Your task to perform on an android device: change the clock display to analog Image 0: 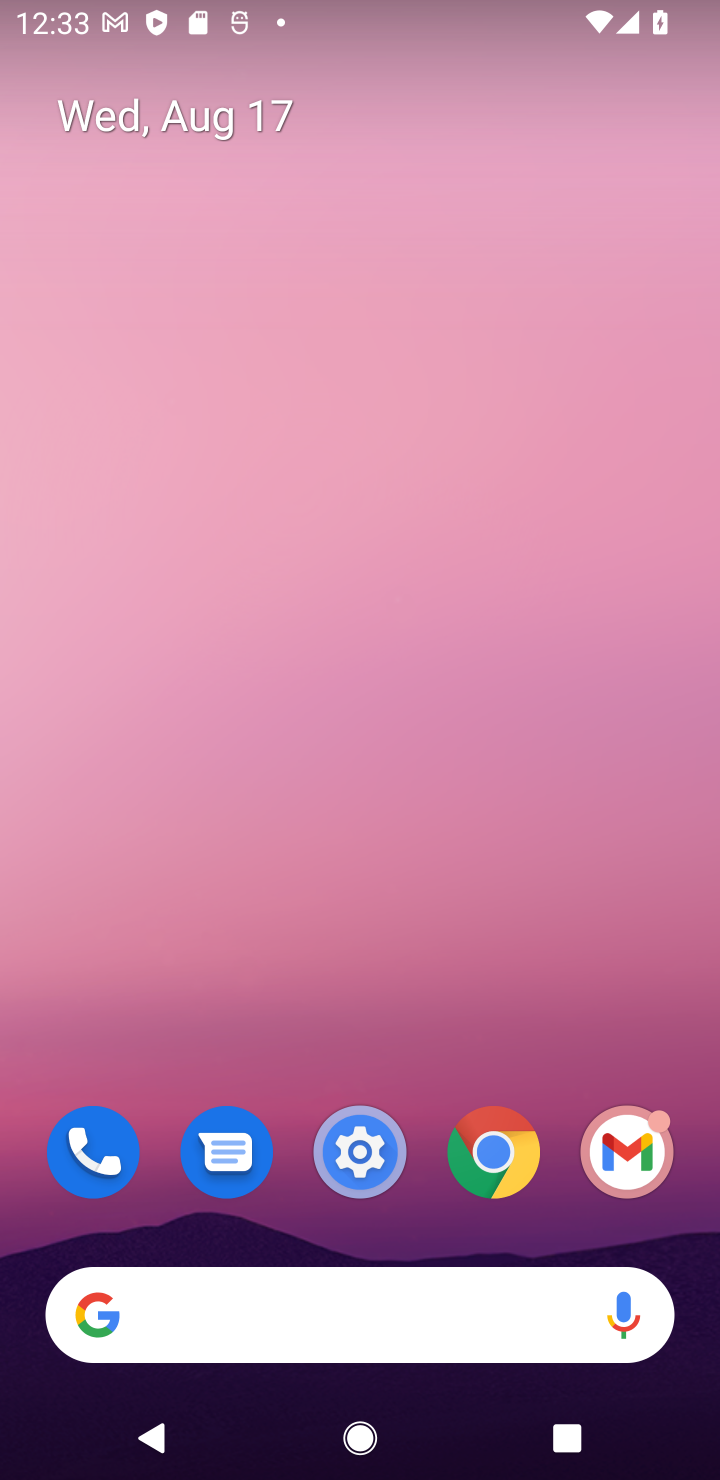
Step 0: drag from (490, 716) to (247, 25)
Your task to perform on an android device: change the clock display to analog Image 1: 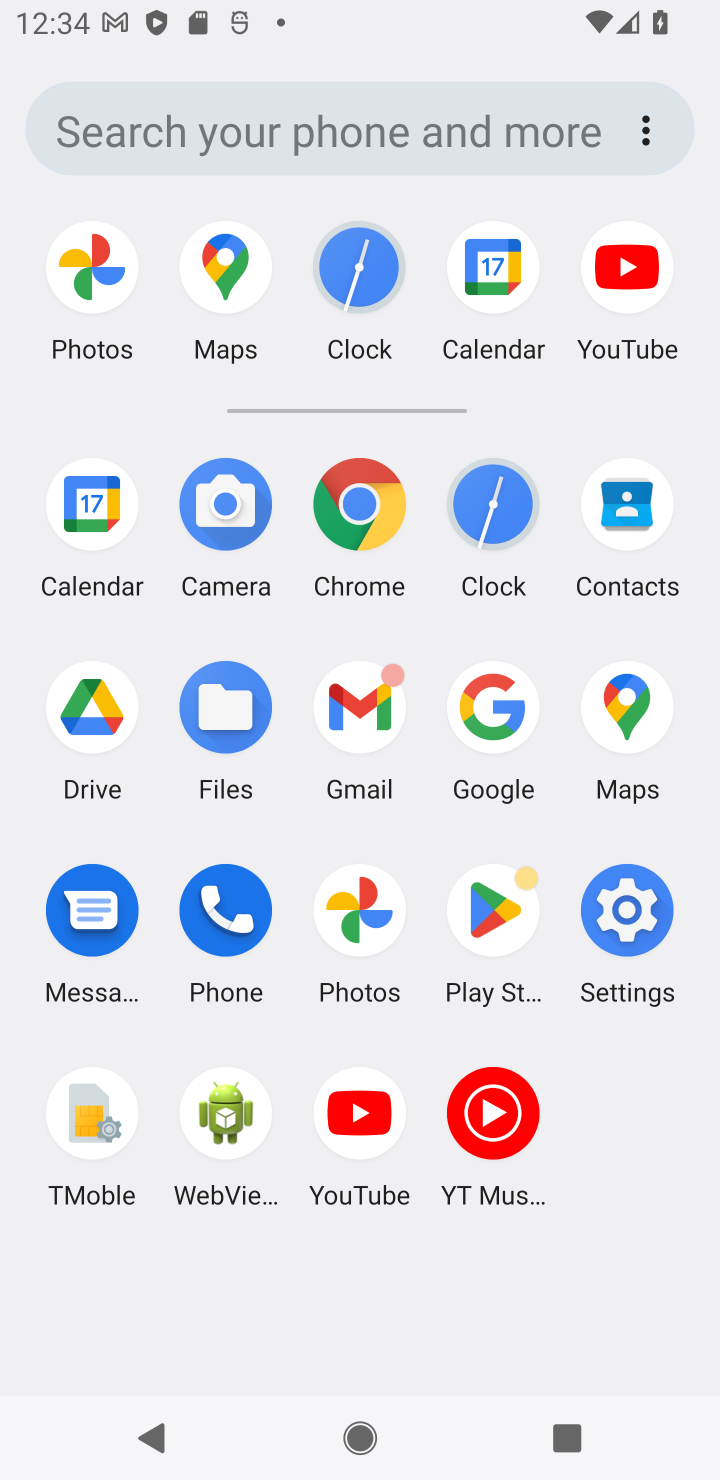
Step 1: click (508, 528)
Your task to perform on an android device: change the clock display to analog Image 2: 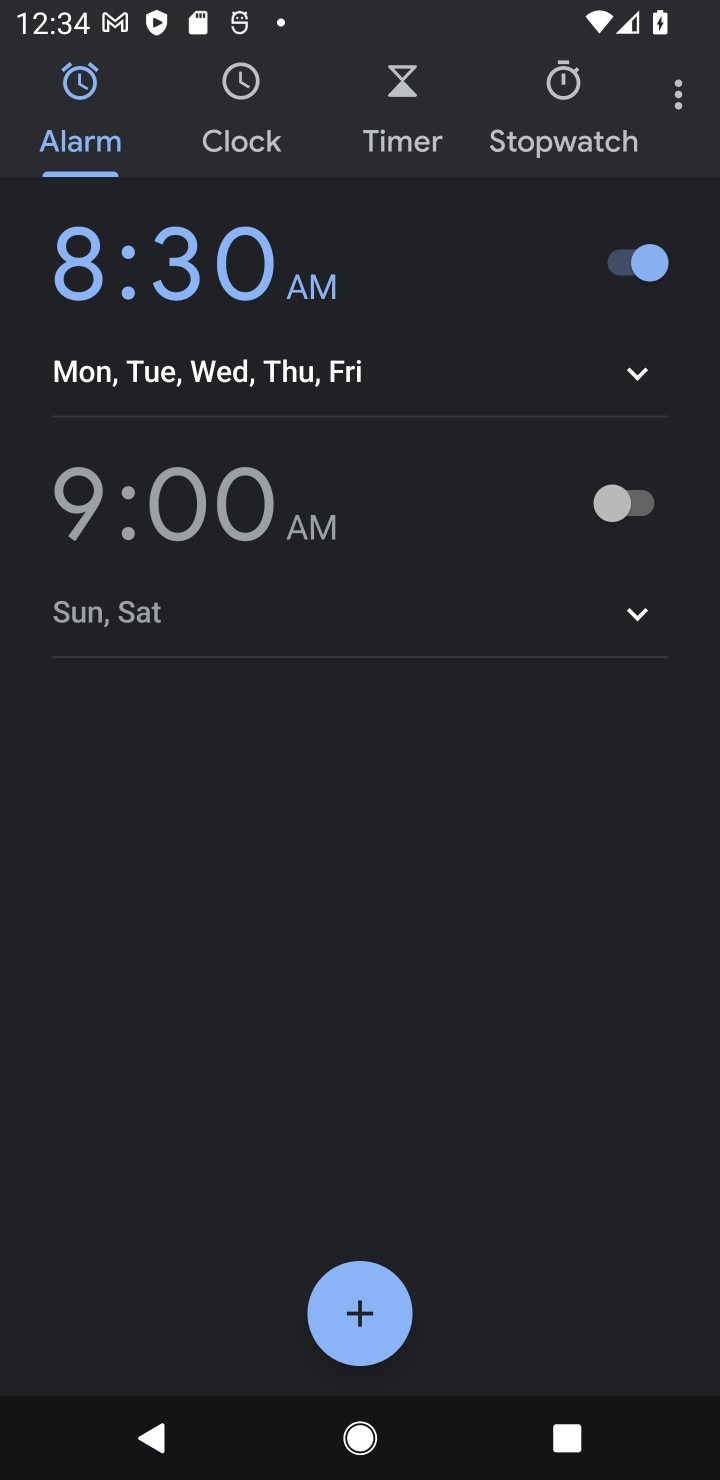
Step 2: click (660, 96)
Your task to perform on an android device: change the clock display to analog Image 3: 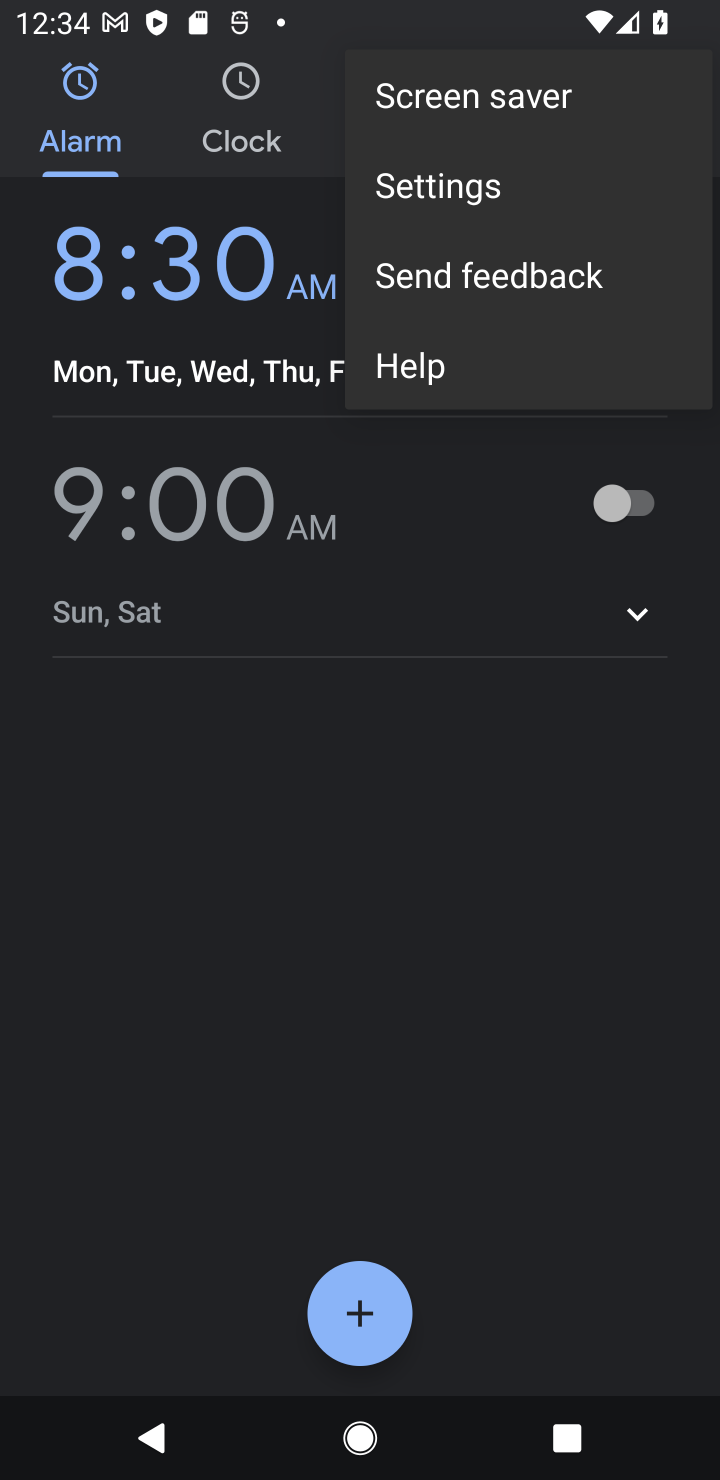
Step 3: click (461, 191)
Your task to perform on an android device: change the clock display to analog Image 4: 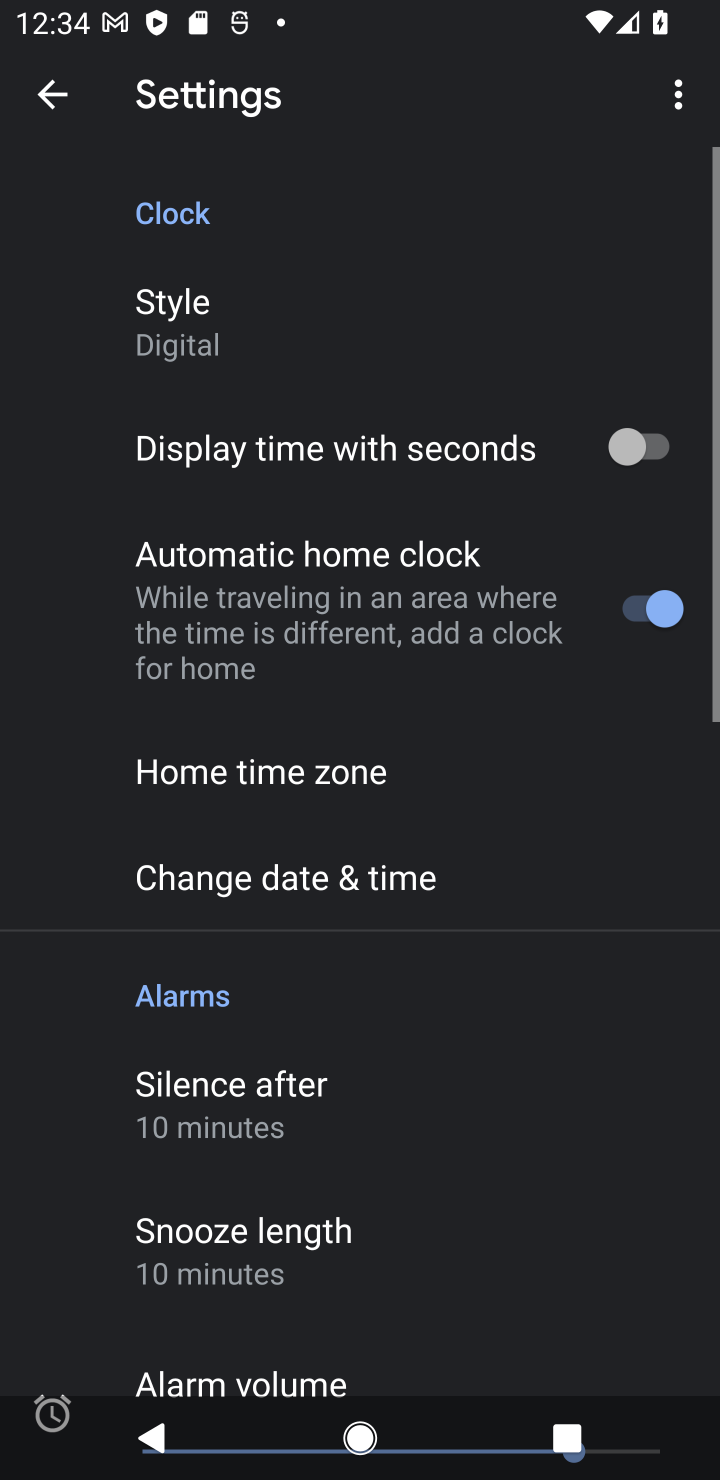
Step 4: click (194, 325)
Your task to perform on an android device: change the clock display to analog Image 5: 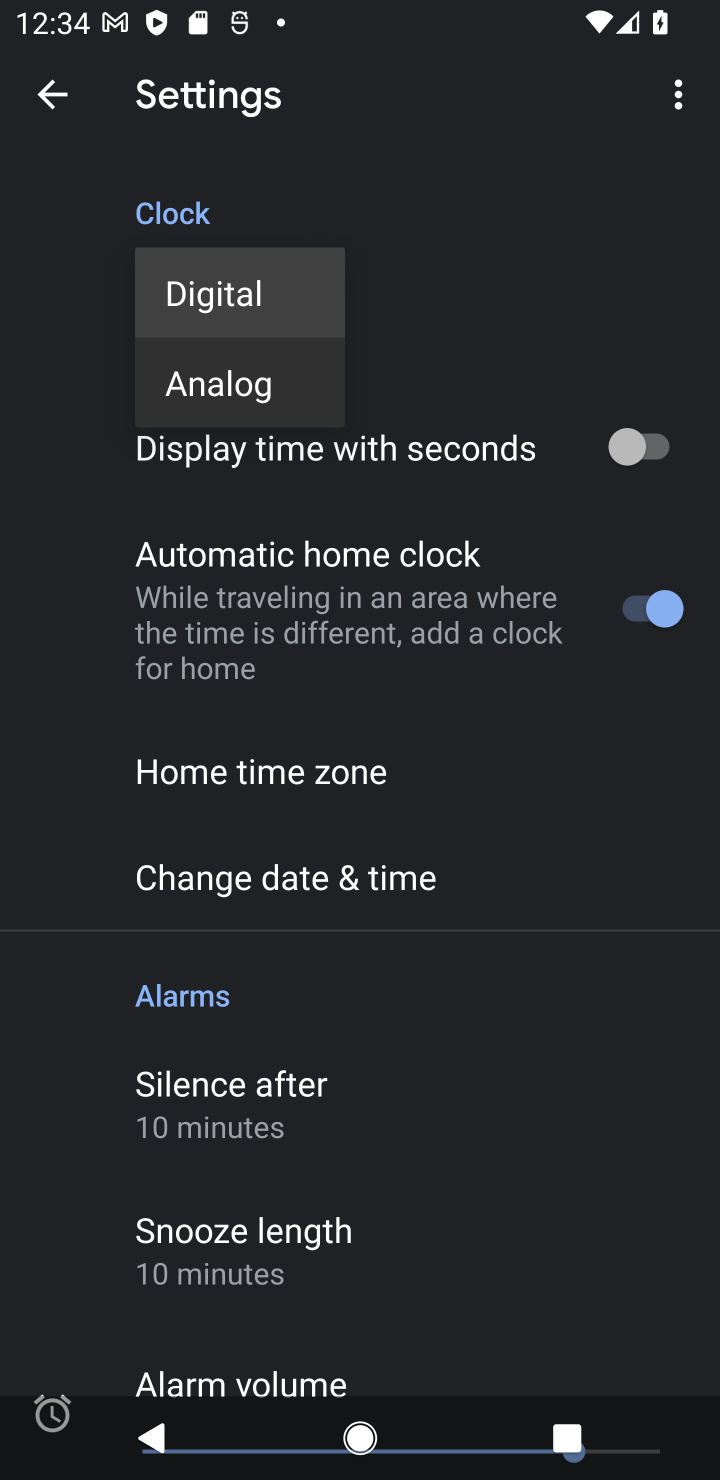
Step 5: click (252, 385)
Your task to perform on an android device: change the clock display to analog Image 6: 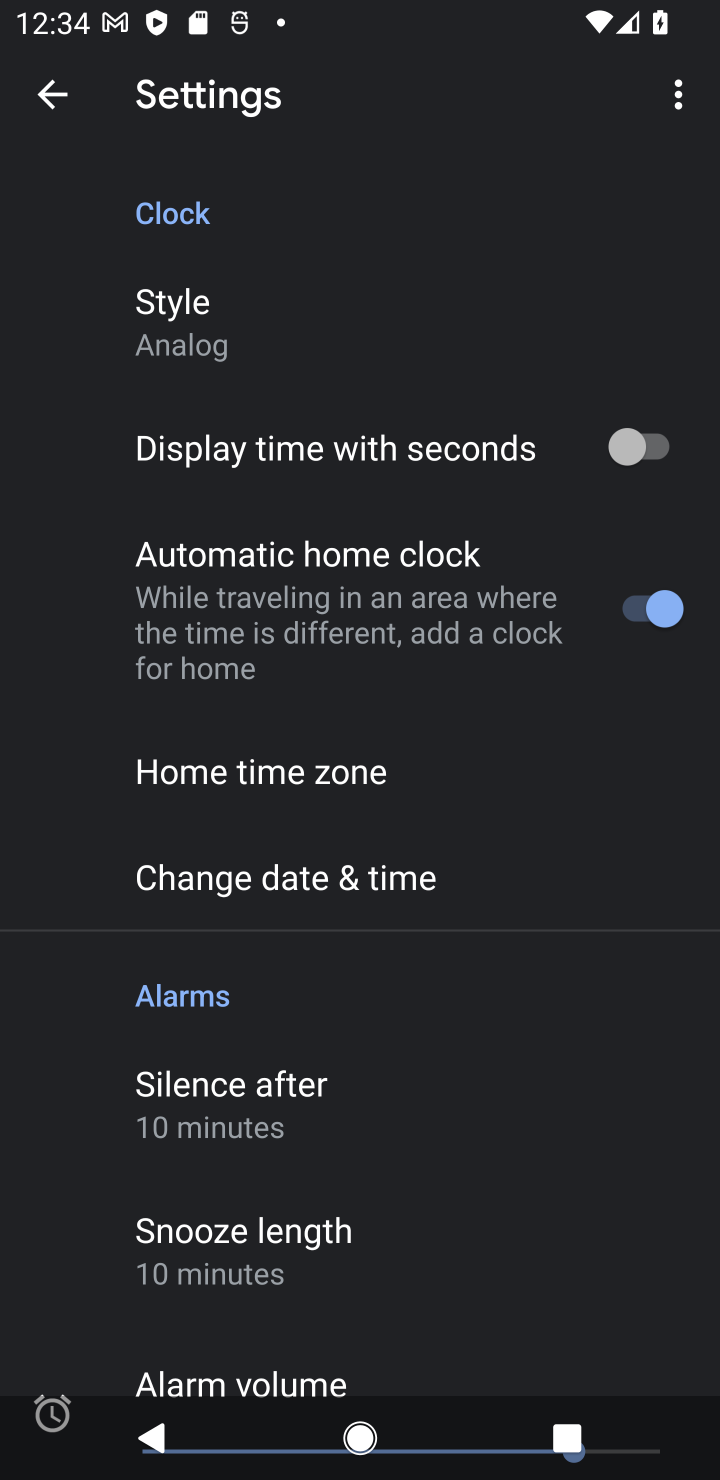
Step 6: task complete